Your task to perform on an android device: Turn off the flashlight Image 0: 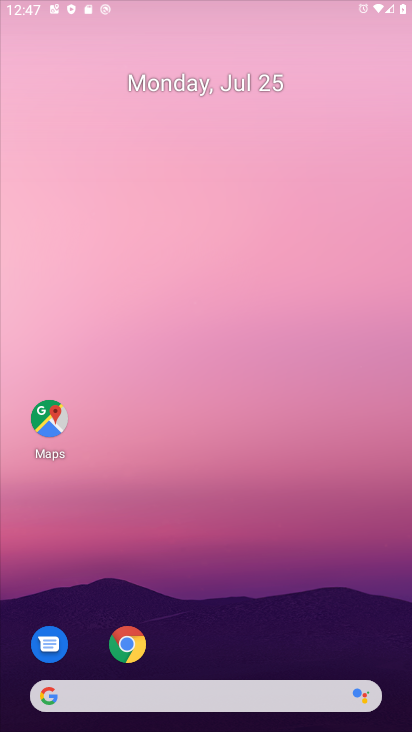
Step 0: drag from (350, 633) to (104, 0)
Your task to perform on an android device: Turn off the flashlight Image 1: 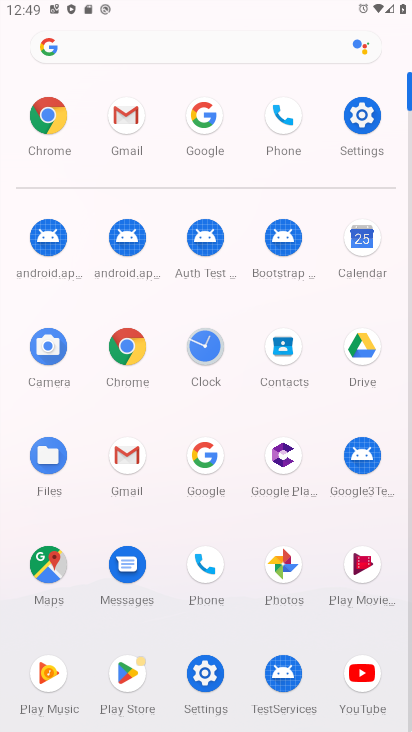
Step 1: click (206, 671)
Your task to perform on an android device: Turn off the flashlight Image 2: 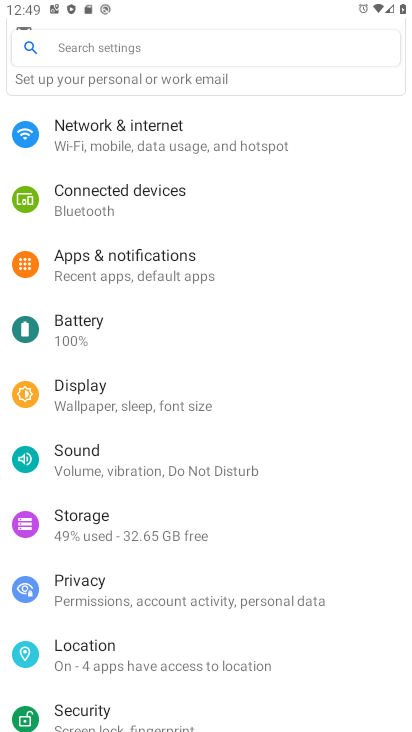
Step 2: task complete